Your task to perform on an android device: Go to CNN.com Image 0: 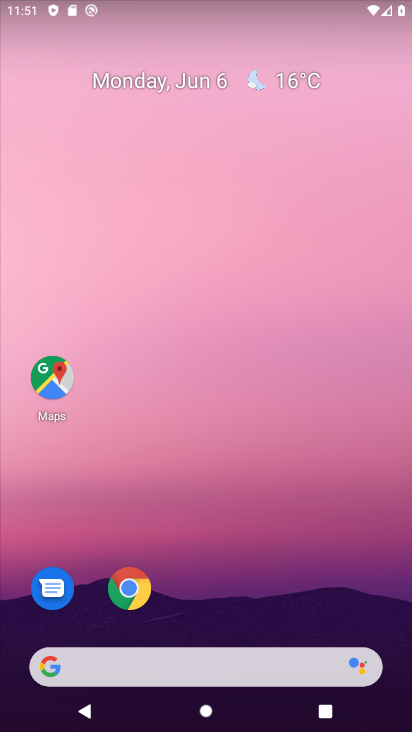
Step 0: click (201, 681)
Your task to perform on an android device: Go to CNN.com Image 1: 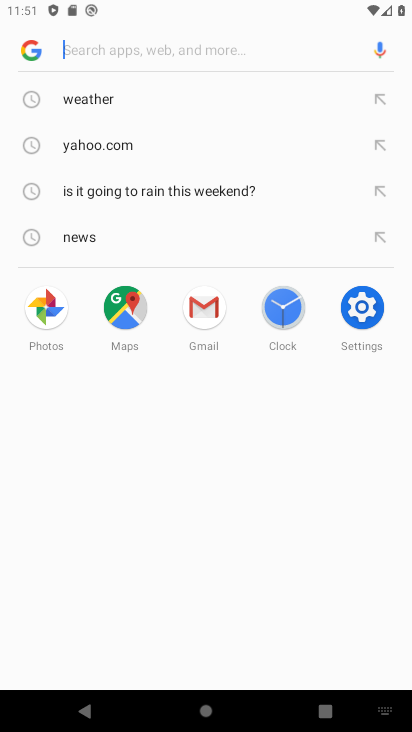
Step 1: type "cnn.com"
Your task to perform on an android device: Go to CNN.com Image 2: 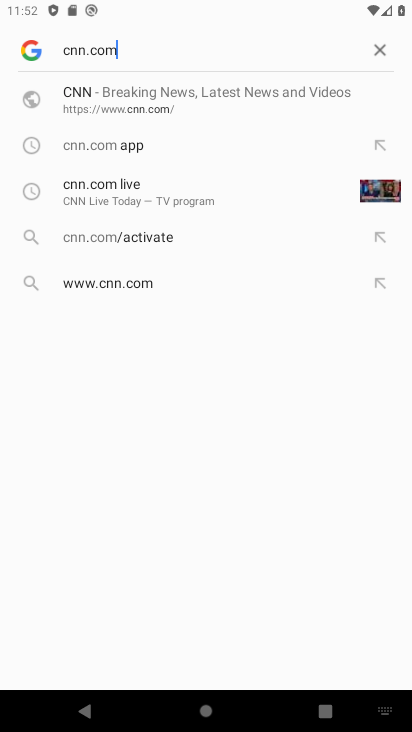
Step 2: click (155, 82)
Your task to perform on an android device: Go to CNN.com Image 3: 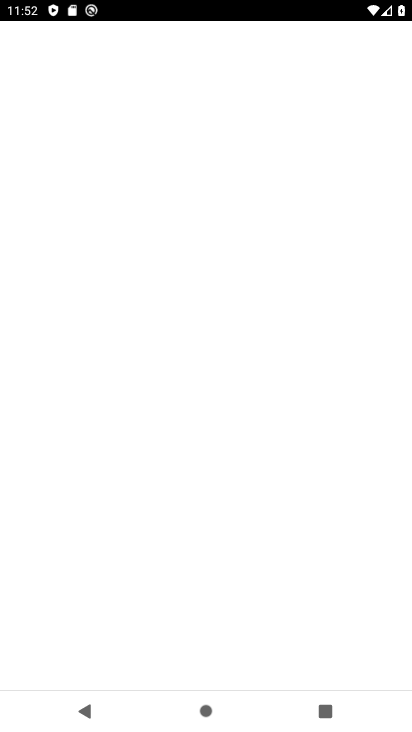
Step 3: task complete